Your task to perform on an android device: Open Amazon Image 0: 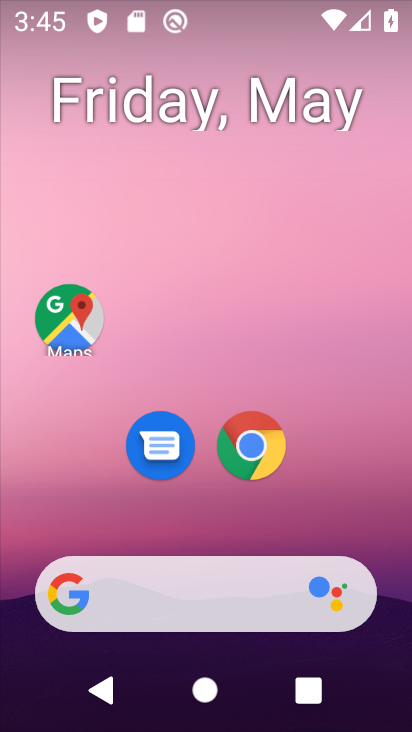
Step 0: click (245, 443)
Your task to perform on an android device: Open Amazon Image 1: 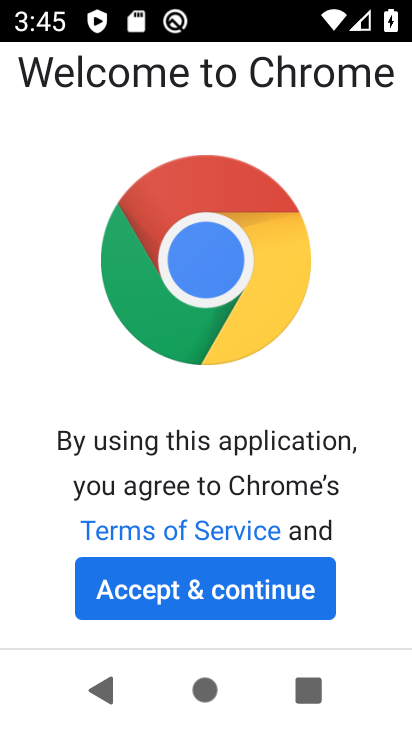
Step 1: click (178, 592)
Your task to perform on an android device: Open Amazon Image 2: 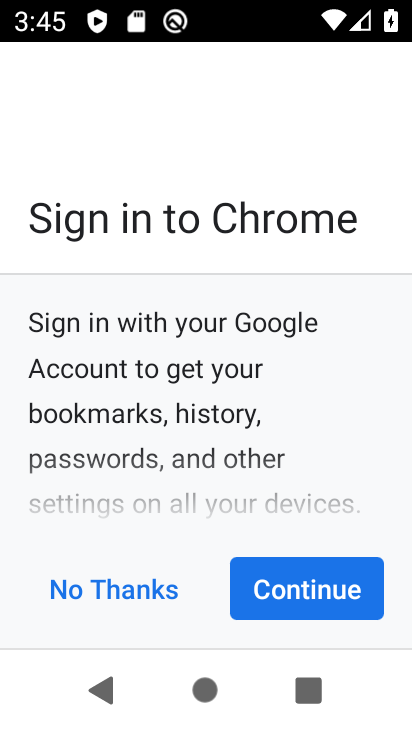
Step 2: click (313, 579)
Your task to perform on an android device: Open Amazon Image 3: 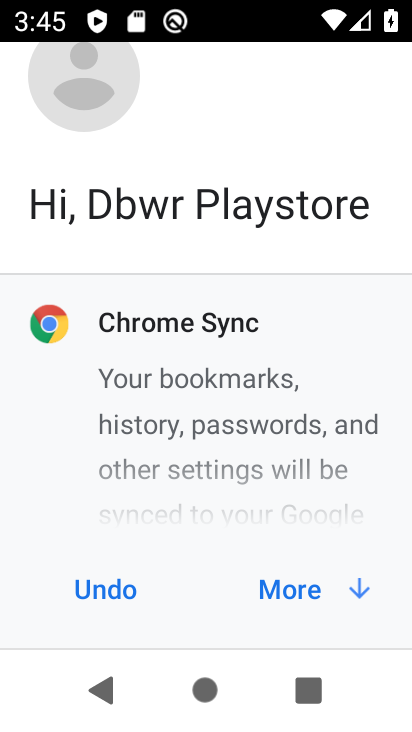
Step 3: click (299, 587)
Your task to perform on an android device: Open Amazon Image 4: 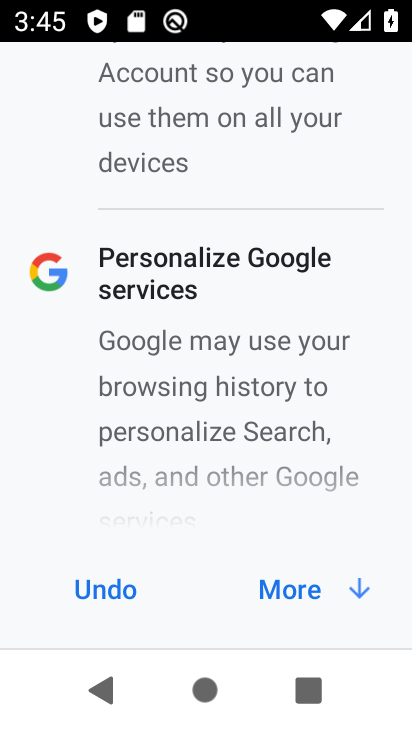
Step 4: click (281, 587)
Your task to perform on an android device: Open Amazon Image 5: 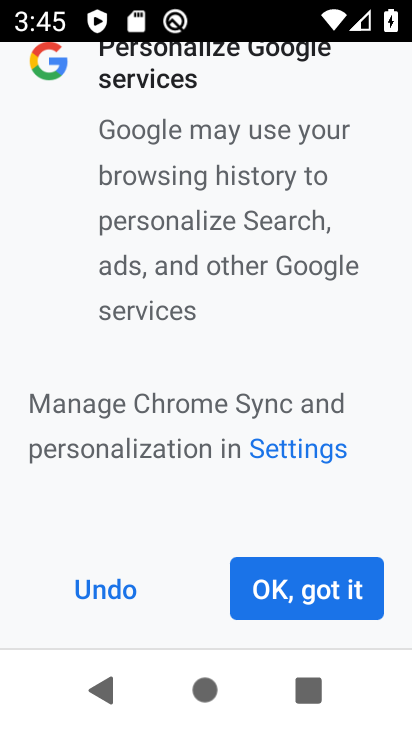
Step 5: click (281, 587)
Your task to perform on an android device: Open Amazon Image 6: 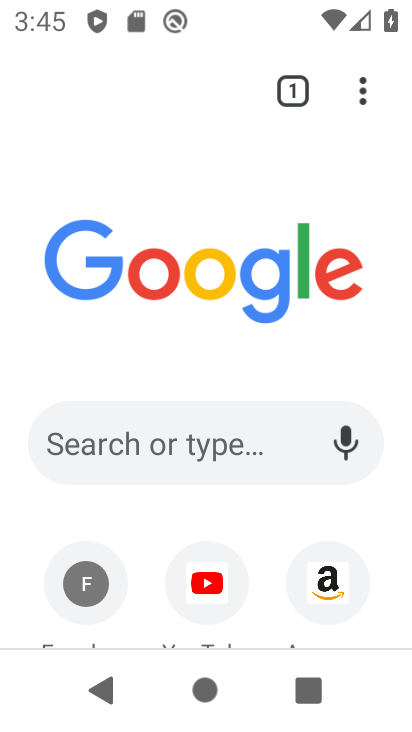
Step 6: click (199, 440)
Your task to perform on an android device: Open Amazon Image 7: 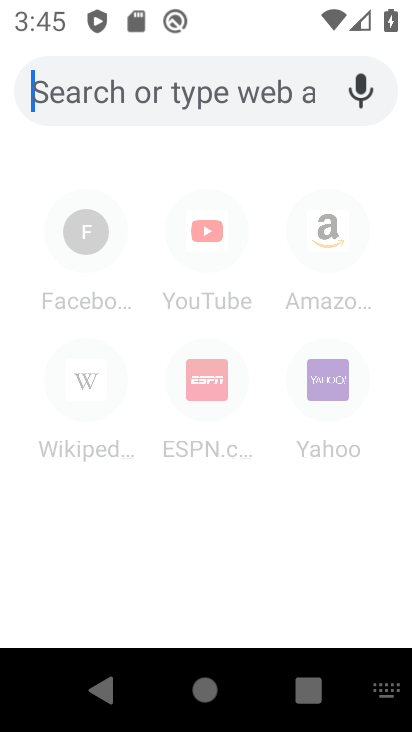
Step 7: type "Amazon"
Your task to perform on an android device: Open Amazon Image 8: 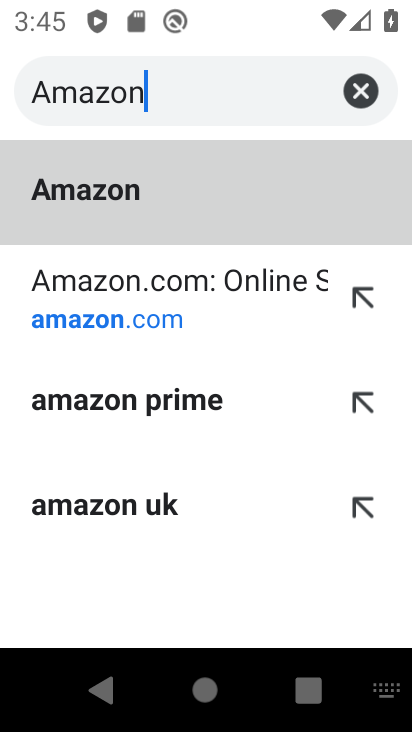
Step 8: click (108, 185)
Your task to perform on an android device: Open Amazon Image 9: 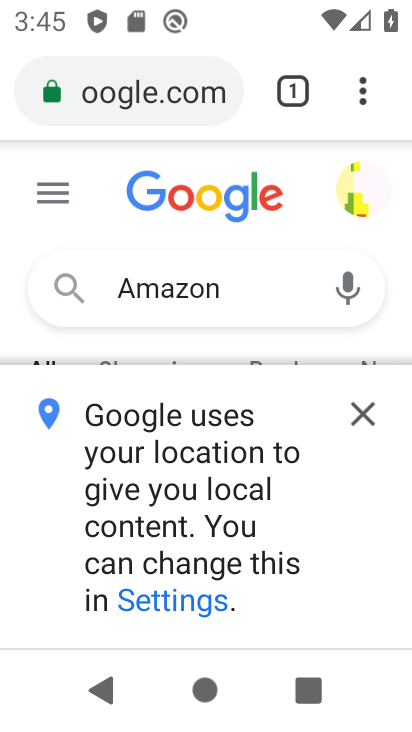
Step 9: task complete